Your task to perform on an android device: Open Google Image 0: 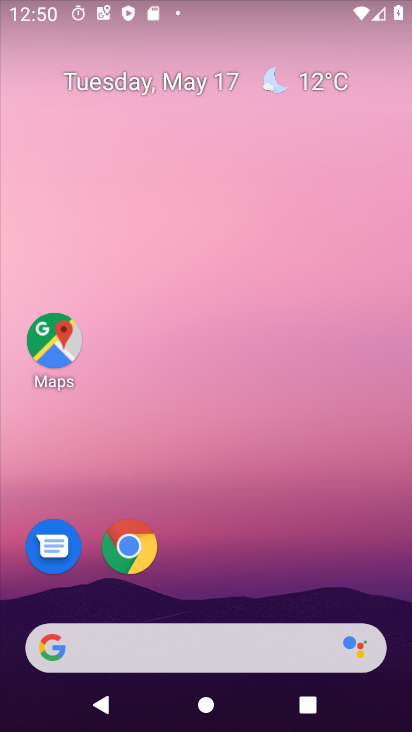
Step 0: drag from (164, 662) to (406, 7)
Your task to perform on an android device: Open Google Image 1: 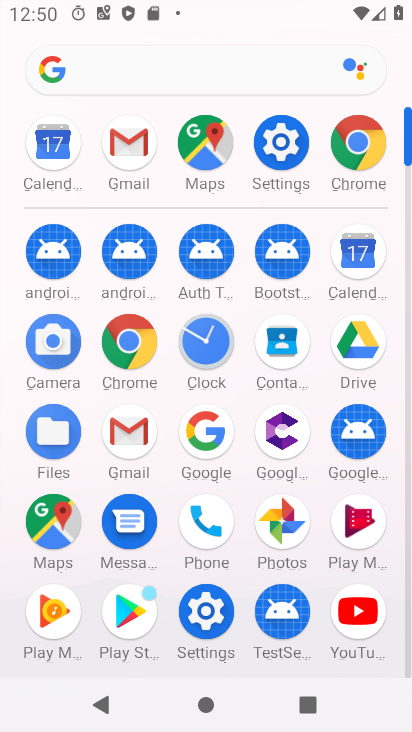
Step 1: click (208, 437)
Your task to perform on an android device: Open Google Image 2: 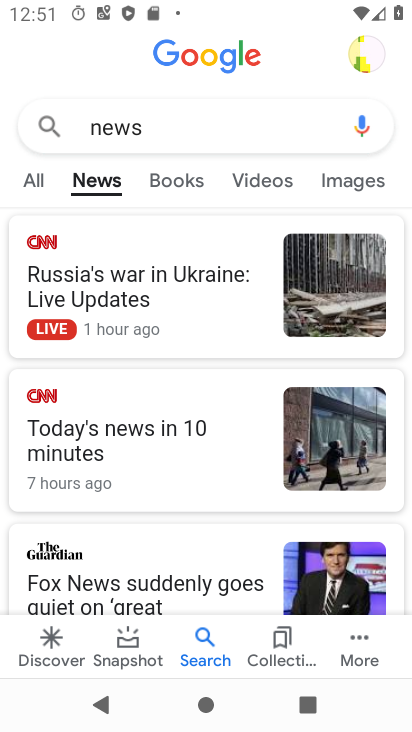
Step 2: task complete